Your task to perform on an android device: Open display settings Image 0: 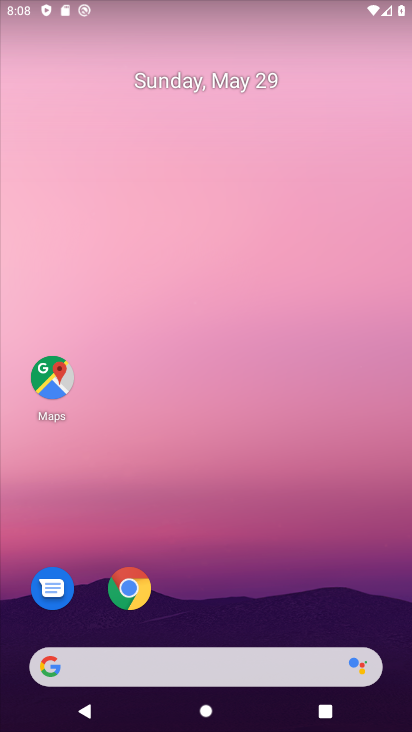
Step 0: drag from (229, 625) to (209, 285)
Your task to perform on an android device: Open display settings Image 1: 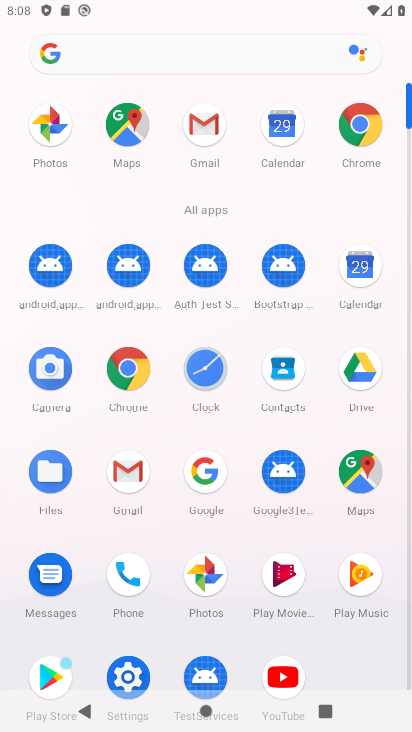
Step 1: click (115, 676)
Your task to perform on an android device: Open display settings Image 2: 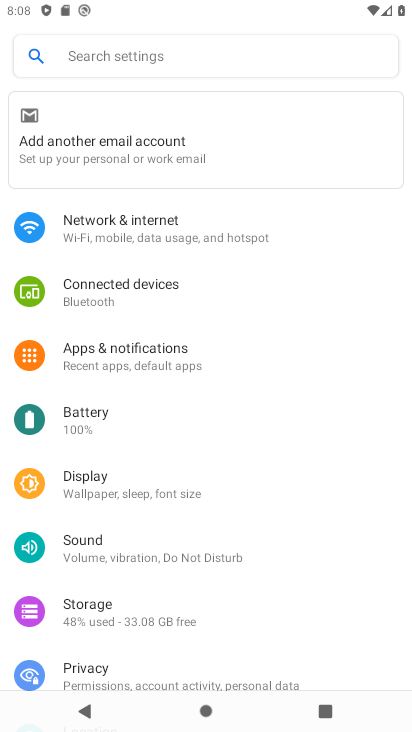
Step 2: drag from (127, 621) to (168, 339)
Your task to perform on an android device: Open display settings Image 3: 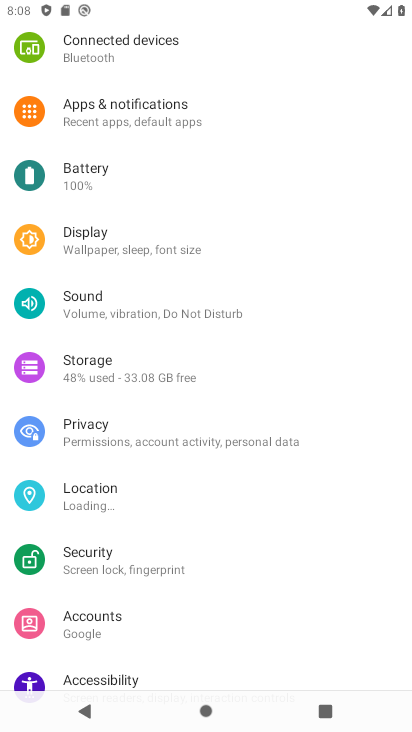
Step 3: click (116, 226)
Your task to perform on an android device: Open display settings Image 4: 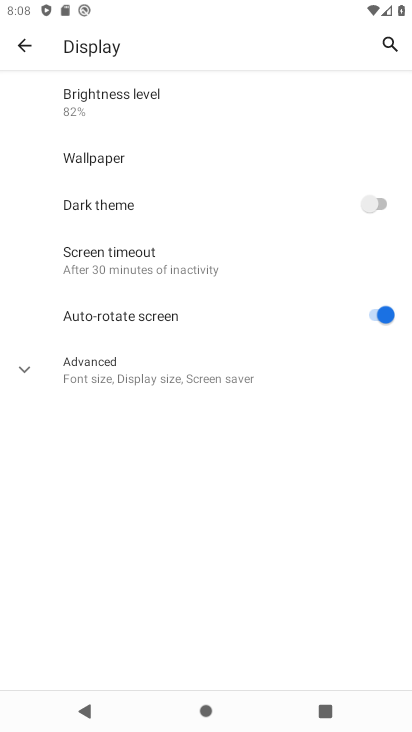
Step 4: task complete